Your task to perform on an android device: Turn on the flashlight Image 0: 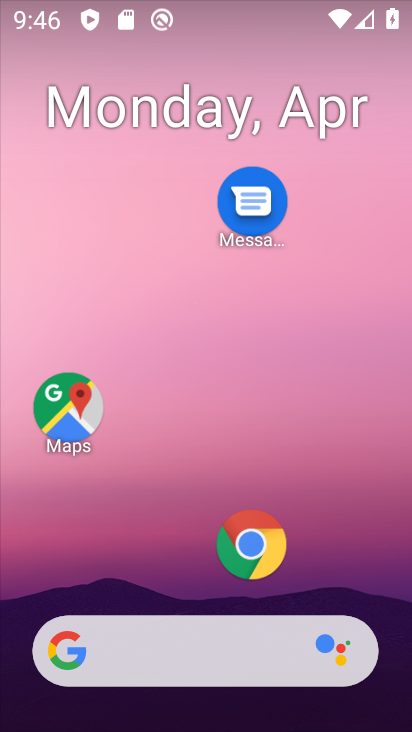
Step 0: drag from (198, 576) to (217, 54)
Your task to perform on an android device: Turn on the flashlight Image 1: 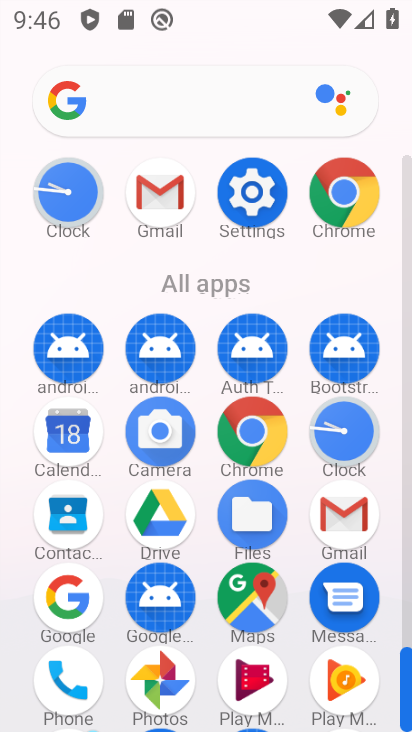
Step 1: click (250, 193)
Your task to perform on an android device: Turn on the flashlight Image 2: 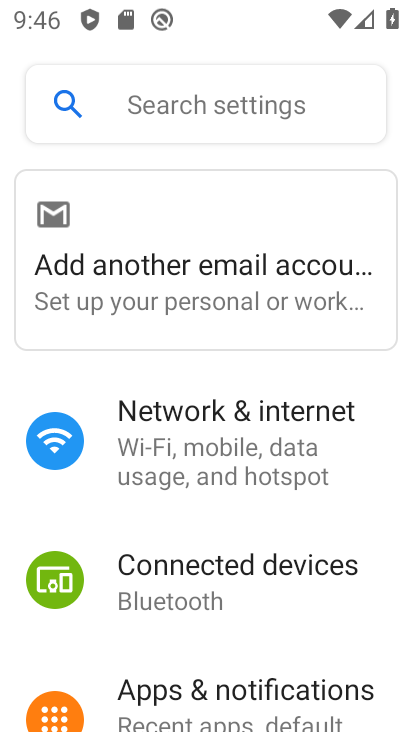
Step 2: click (161, 100)
Your task to perform on an android device: Turn on the flashlight Image 3: 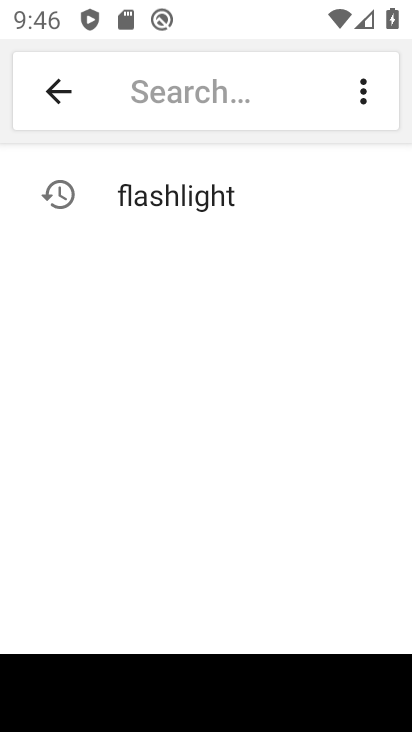
Step 3: click (145, 193)
Your task to perform on an android device: Turn on the flashlight Image 4: 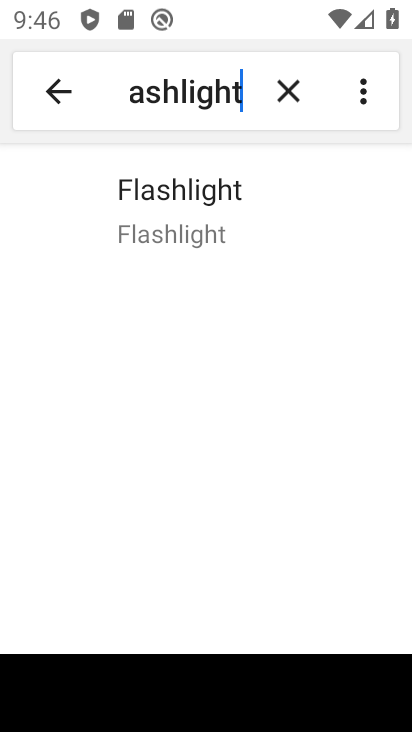
Step 4: click (218, 216)
Your task to perform on an android device: Turn on the flashlight Image 5: 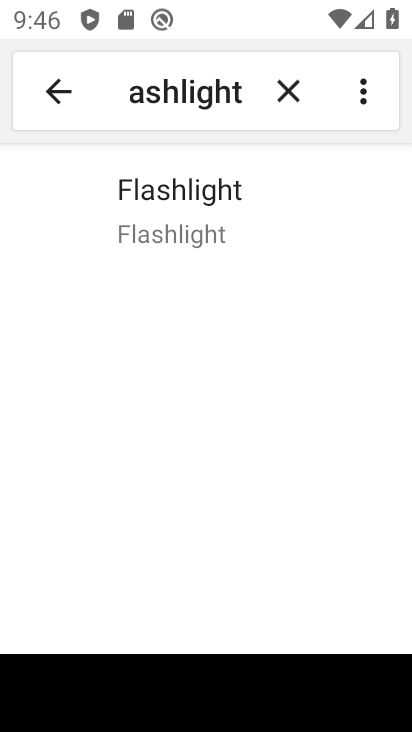
Step 5: click (229, 212)
Your task to perform on an android device: Turn on the flashlight Image 6: 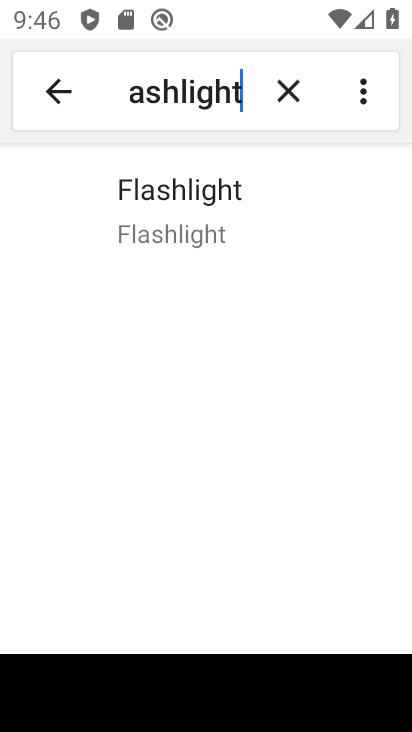
Step 6: task complete